Your task to perform on an android device: Set the phone to "Do not disturb". Image 0: 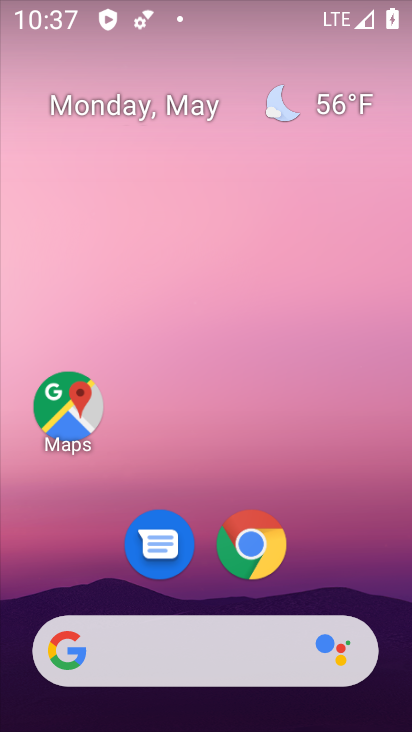
Step 0: drag from (335, 570) to (266, 132)
Your task to perform on an android device: Set the phone to "Do not disturb". Image 1: 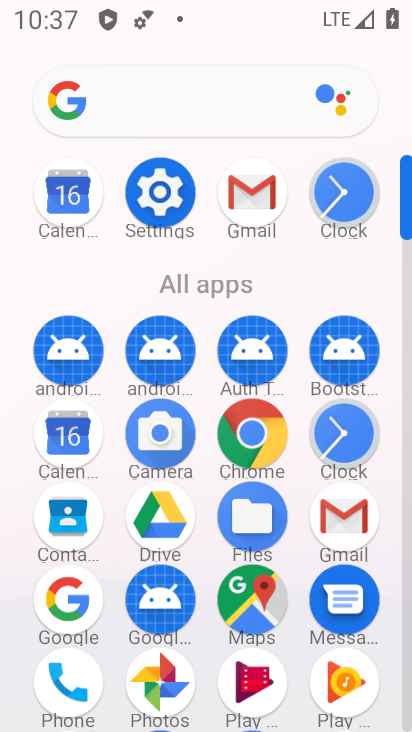
Step 1: click (163, 190)
Your task to perform on an android device: Set the phone to "Do not disturb". Image 2: 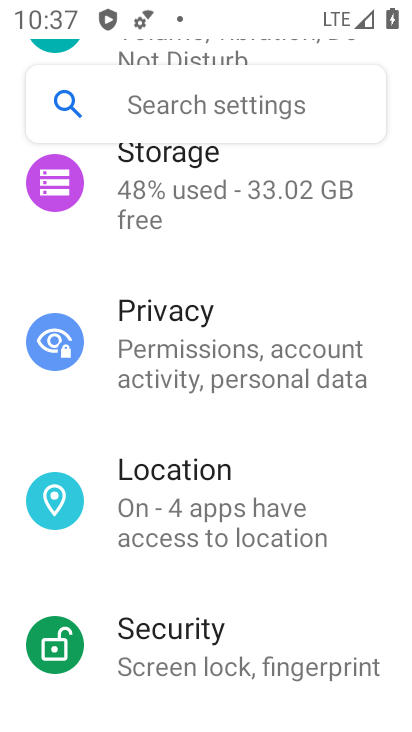
Step 2: drag from (264, 535) to (222, 338)
Your task to perform on an android device: Set the phone to "Do not disturb". Image 3: 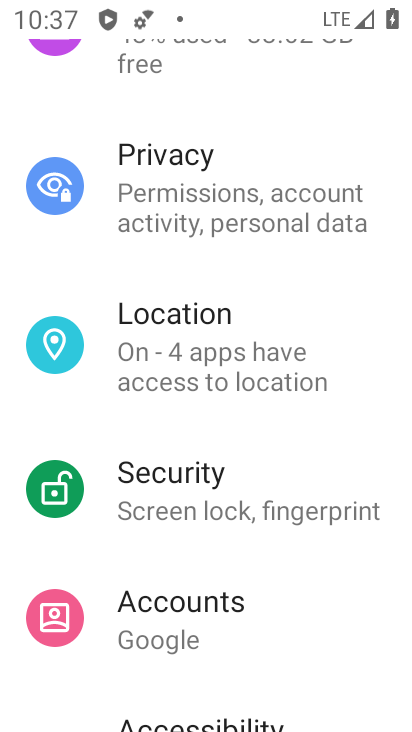
Step 3: drag from (211, 544) to (203, 336)
Your task to perform on an android device: Set the phone to "Do not disturb". Image 4: 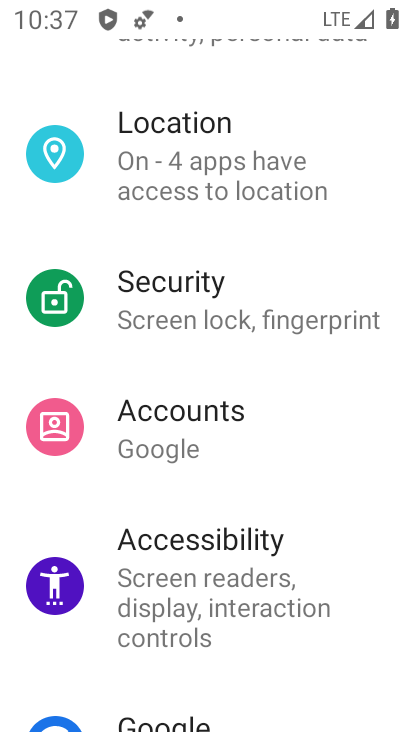
Step 4: drag from (228, 273) to (264, 502)
Your task to perform on an android device: Set the phone to "Do not disturb". Image 5: 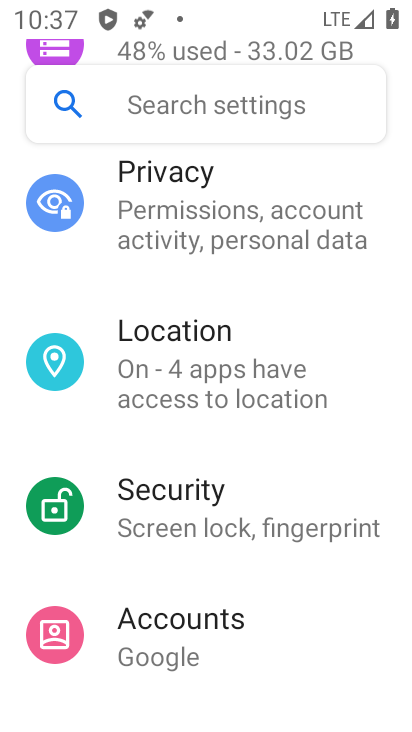
Step 5: drag from (241, 289) to (274, 530)
Your task to perform on an android device: Set the phone to "Do not disturb". Image 6: 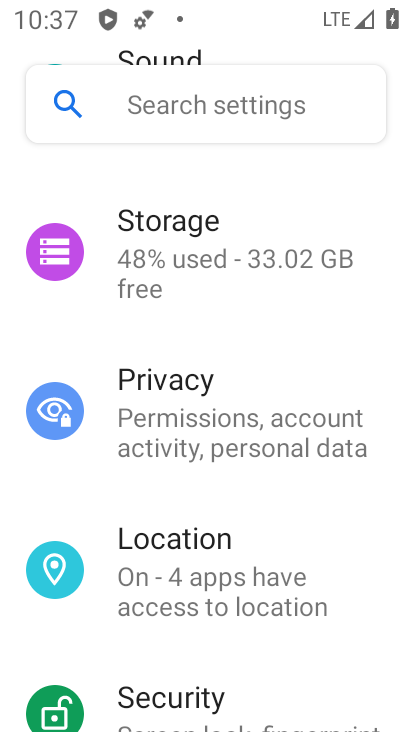
Step 6: drag from (269, 335) to (268, 492)
Your task to perform on an android device: Set the phone to "Do not disturb". Image 7: 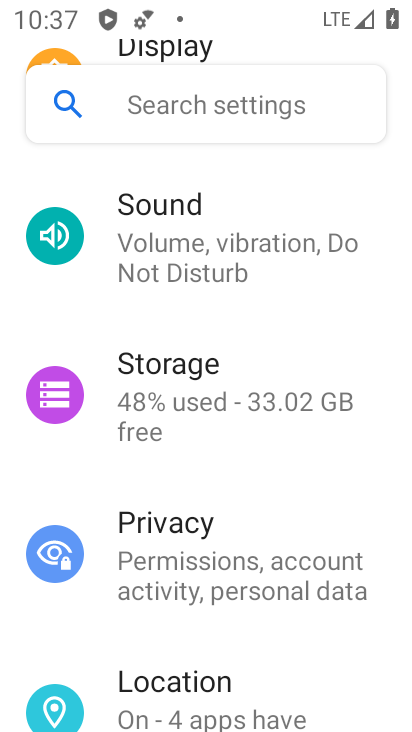
Step 7: click (220, 273)
Your task to perform on an android device: Set the phone to "Do not disturb". Image 8: 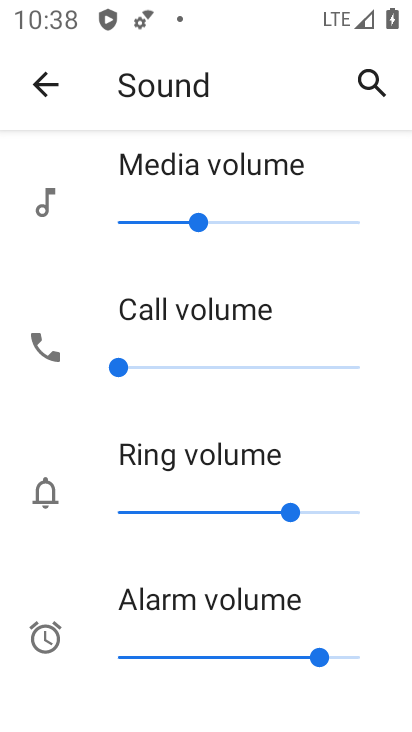
Step 8: drag from (215, 548) to (236, 408)
Your task to perform on an android device: Set the phone to "Do not disturb". Image 9: 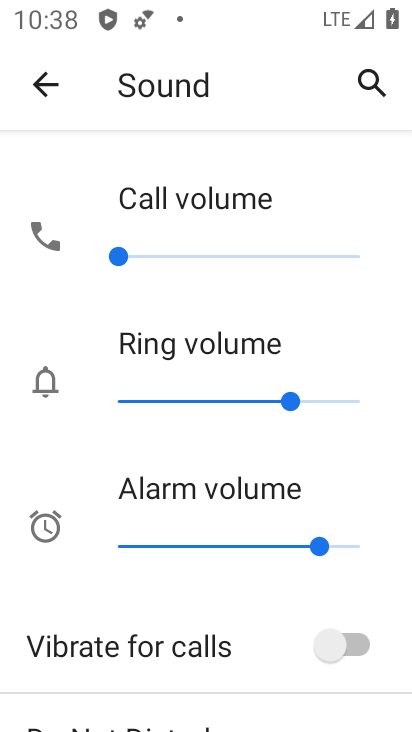
Step 9: drag from (204, 640) to (265, 503)
Your task to perform on an android device: Set the phone to "Do not disturb". Image 10: 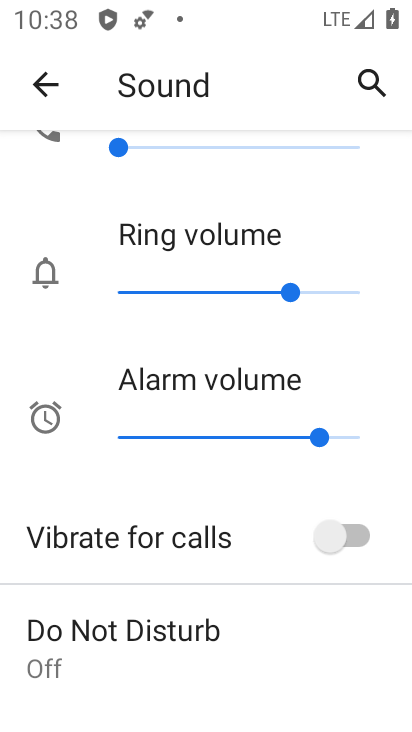
Step 10: click (107, 643)
Your task to perform on an android device: Set the phone to "Do not disturb". Image 11: 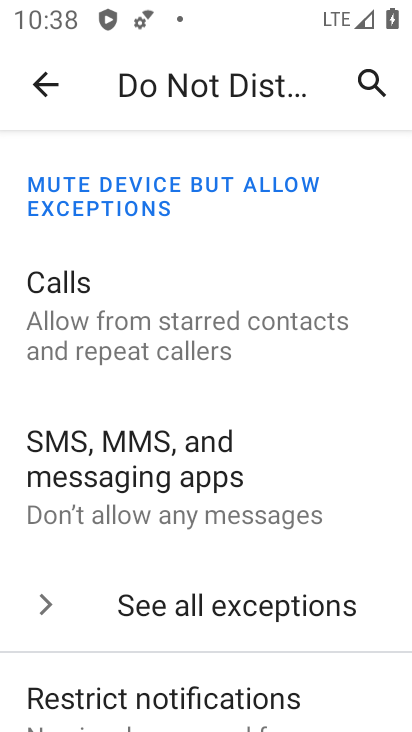
Step 11: drag from (100, 618) to (181, 458)
Your task to perform on an android device: Set the phone to "Do not disturb". Image 12: 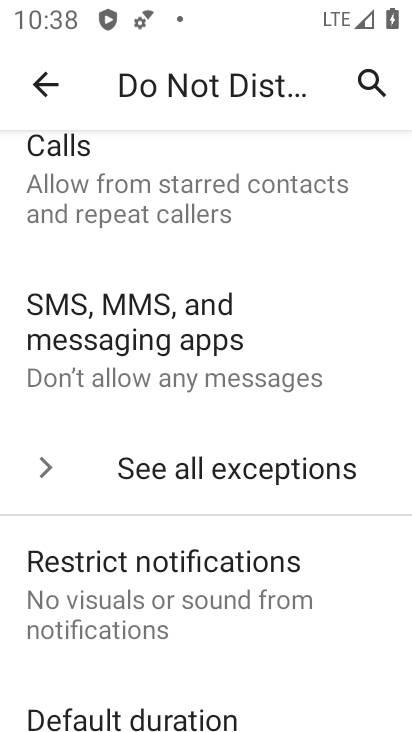
Step 12: drag from (143, 645) to (256, 398)
Your task to perform on an android device: Set the phone to "Do not disturb". Image 13: 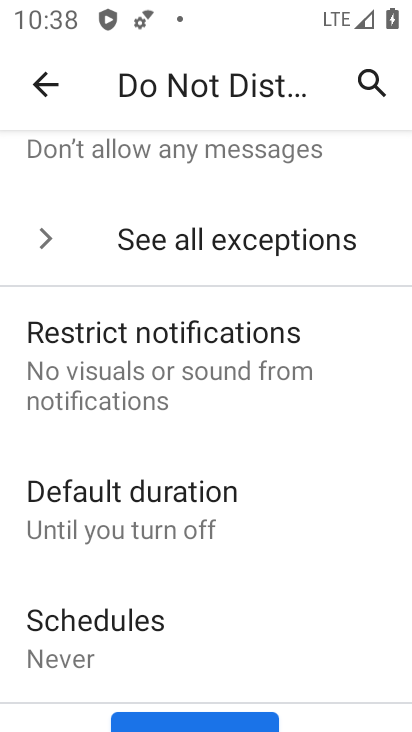
Step 13: drag from (190, 630) to (264, 440)
Your task to perform on an android device: Set the phone to "Do not disturb". Image 14: 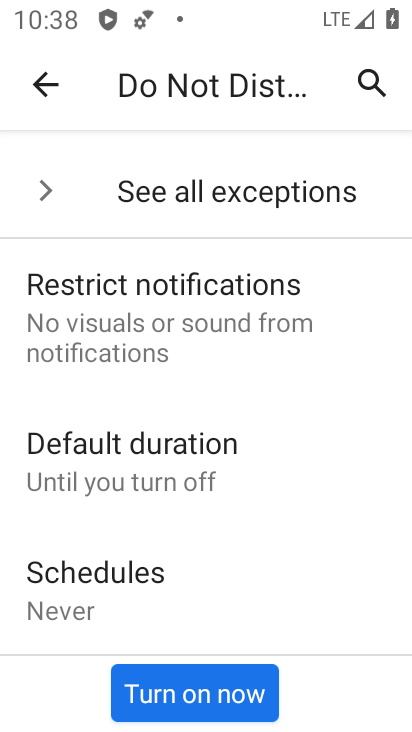
Step 14: click (179, 686)
Your task to perform on an android device: Set the phone to "Do not disturb". Image 15: 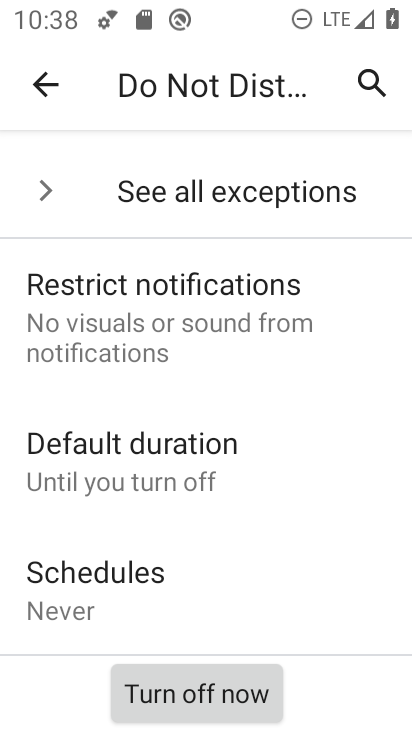
Step 15: task complete